Your task to perform on an android device: Open Android settings Image 0: 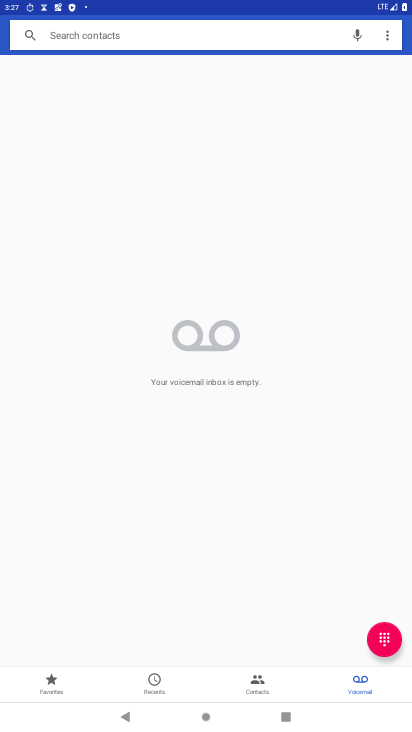
Step 0: press home button
Your task to perform on an android device: Open Android settings Image 1: 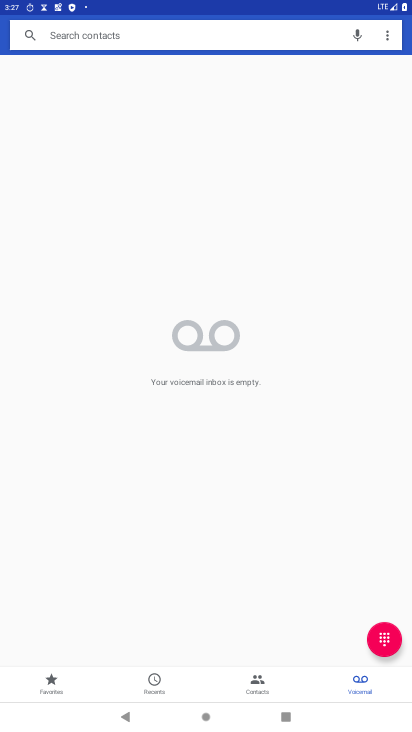
Step 1: press home button
Your task to perform on an android device: Open Android settings Image 2: 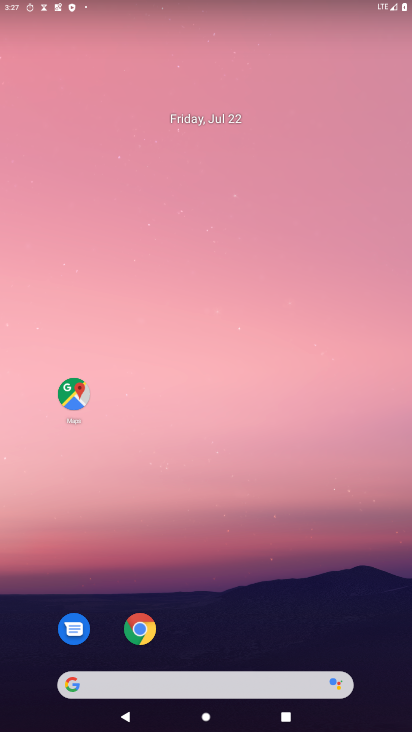
Step 2: drag from (171, 687) to (187, 0)
Your task to perform on an android device: Open Android settings Image 3: 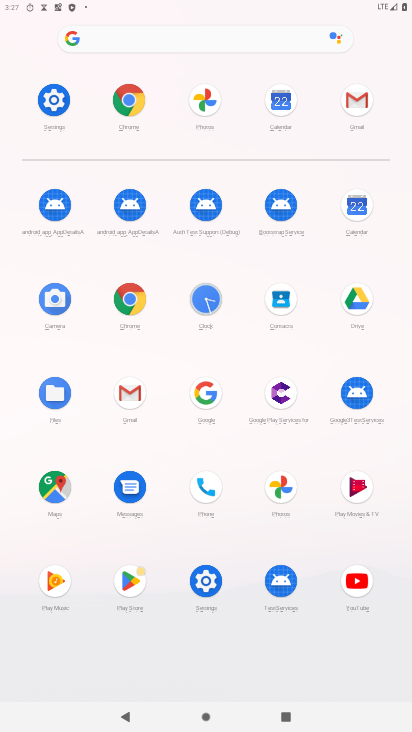
Step 3: click (70, 99)
Your task to perform on an android device: Open Android settings Image 4: 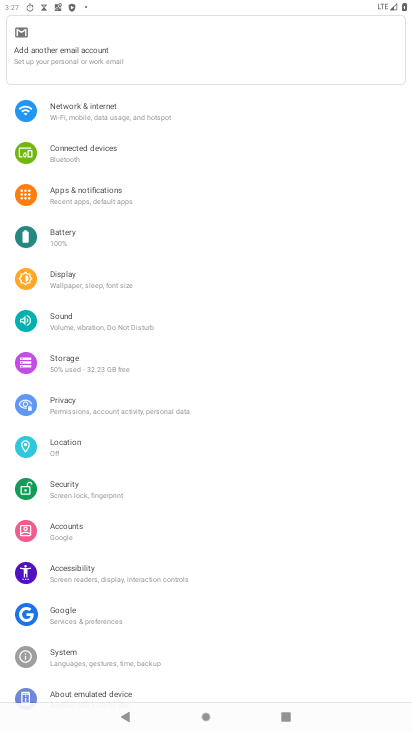
Step 4: click (135, 699)
Your task to perform on an android device: Open Android settings Image 5: 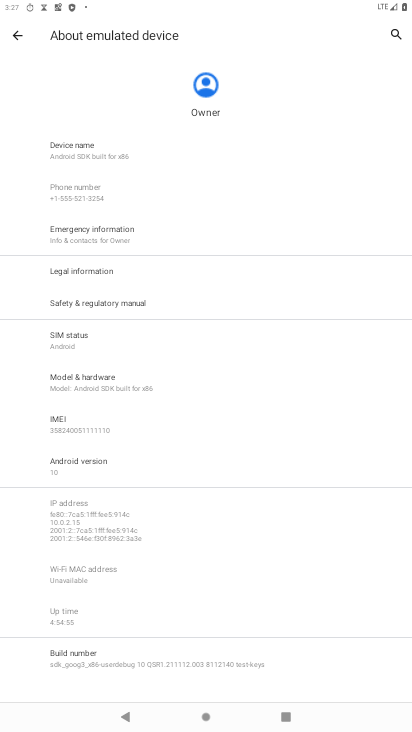
Step 5: click (112, 470)
Your task to perform on an android device: Open Android settings Image 6: 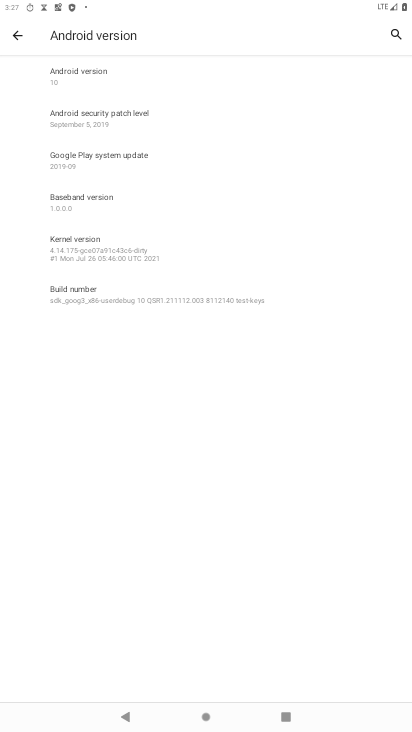
Step 6: task complete